Your task to perform on an android device: set an alarm Image 0: 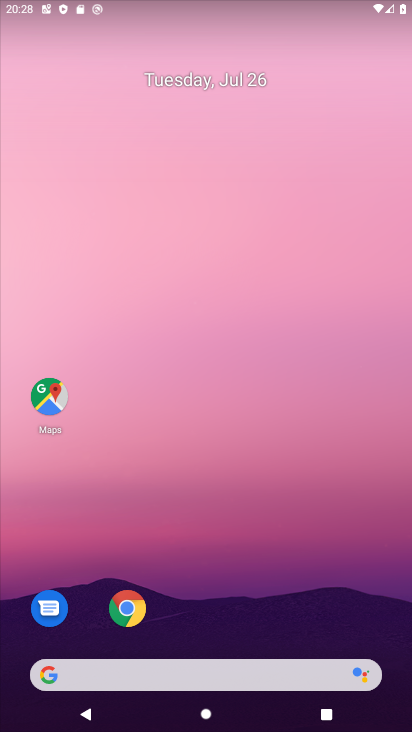
Step 0: drag from (12, 680) to (177, 113)
Your task to perform on an android device: set an alarm Image 1: 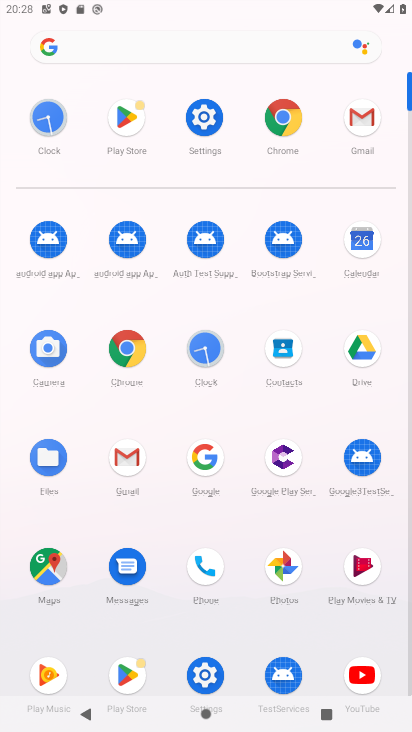
Step 1: click (224, 346)
Your task to perform on an android device: set an alarm Image 2: 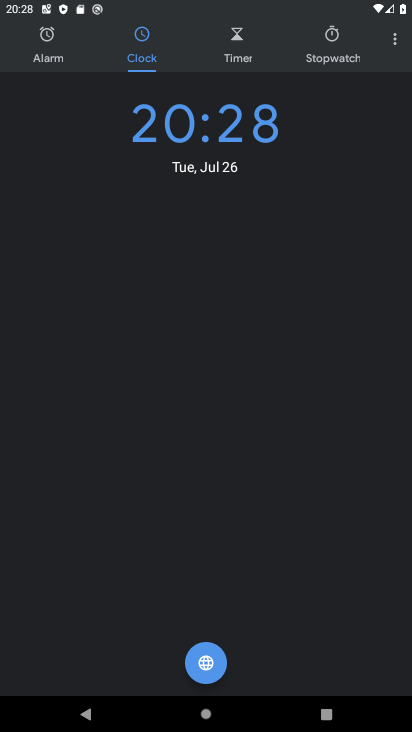
Step 2: click (41, 51)
Your task to perform on an android device: set an alarm Image 3: 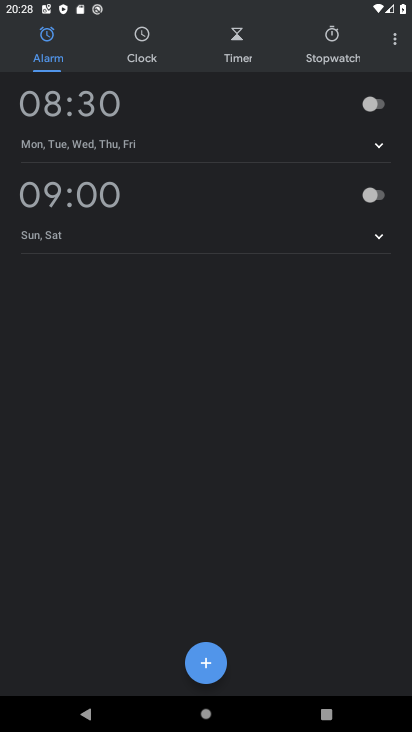
Step 3: task complete